Your task to perform on an android device: Turn on the flashlight Image 0: 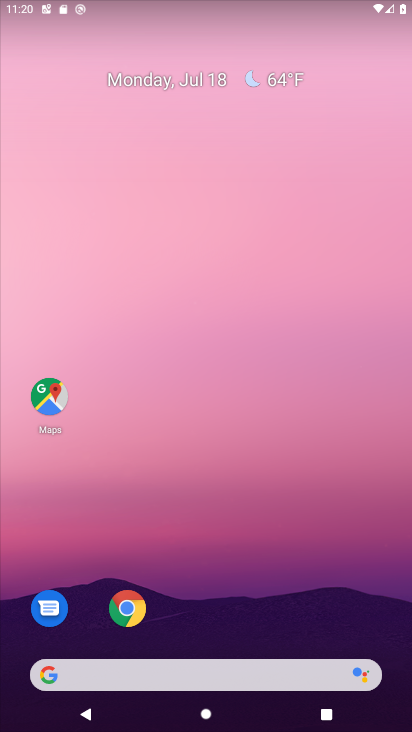
Step 0: drag from (237, 560) to (223, 64)
Your task to perform on an android device: Turn on the flashlight Image 1: 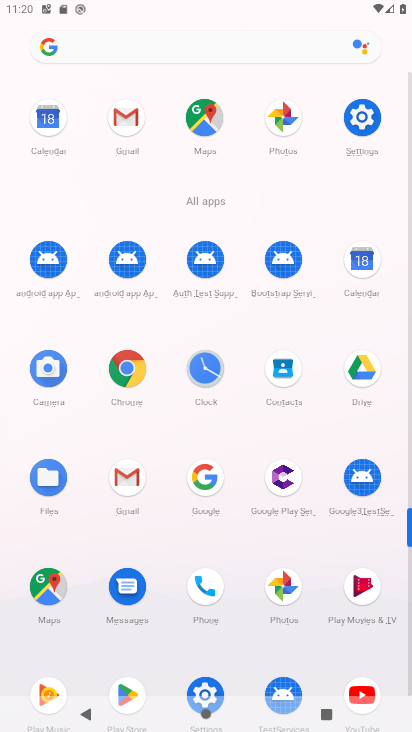
Step 1: click (371, 139)
Your task to perform on an android device: Turn on the flashlight Image 2: 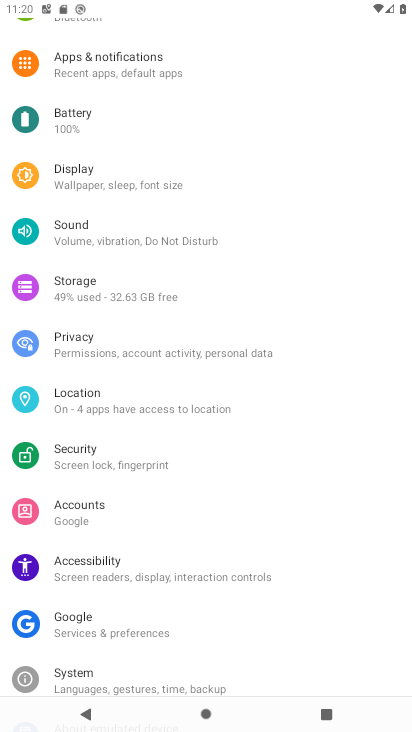
Step 2: task complete